Your task to perform on an android device: check storage Image 0: 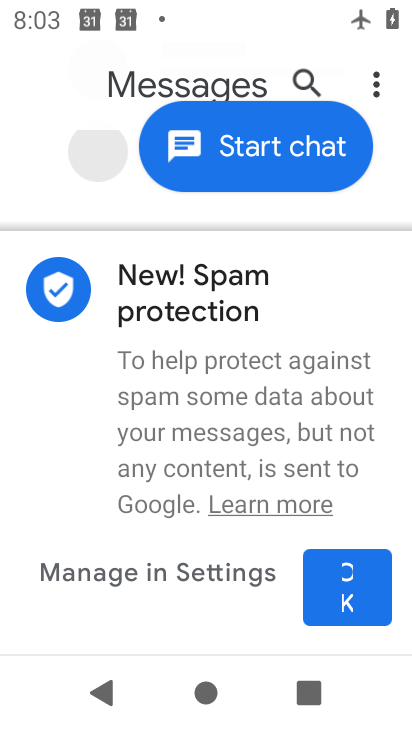
Step 0: press home button
Your task to perform on an android device: check storage Image 1: 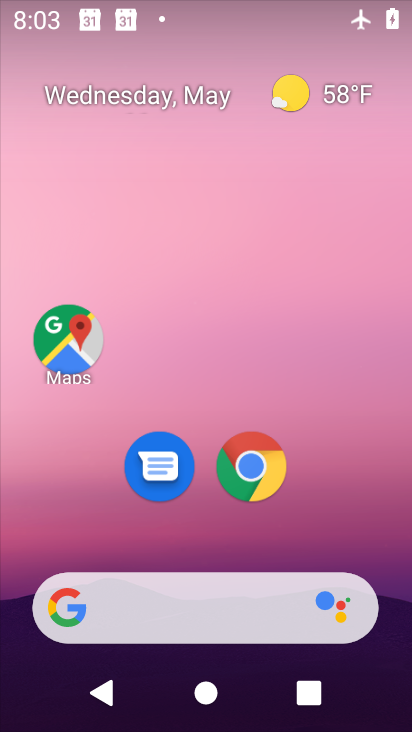
Step 1: drag from (202, 541) to (206, 34)
Your task to perform on an android device: check storage Image 2: 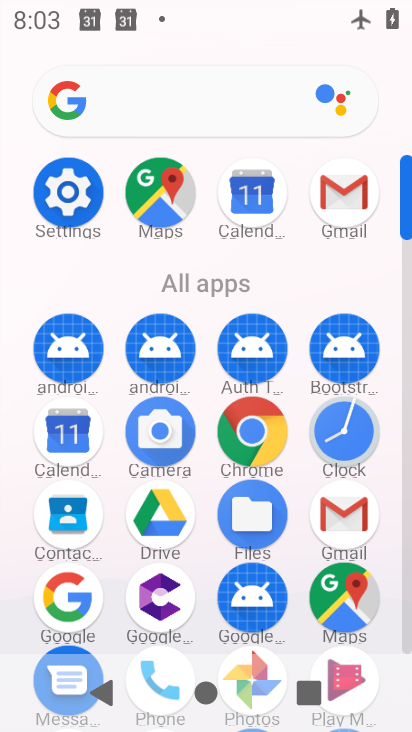
Step 2: click (64, 198)
Your task to perform on an android device: check storage Image 3: 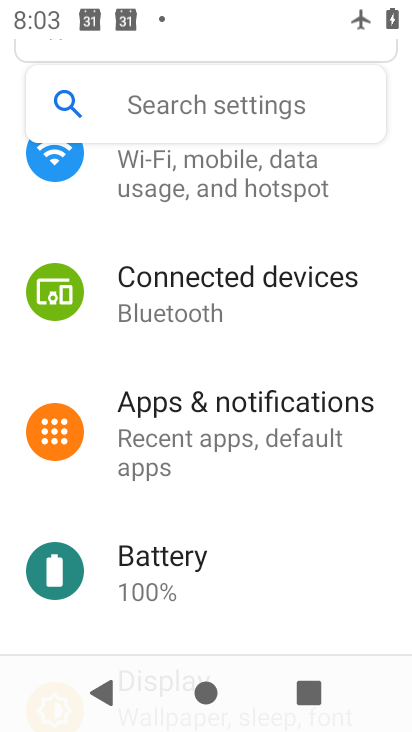
Step 3: drag from (219, 586) to (250, 102)
Your task to perform on an android device: check storage Image 4: 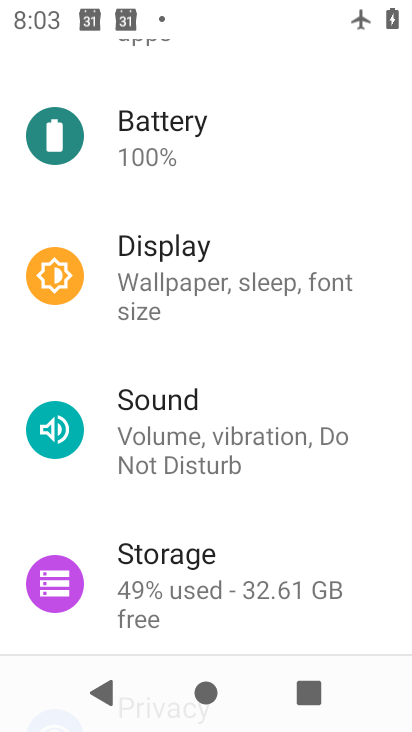
Step 4: click (225, 579)
Your task to perform on an android device: check storage Image 5: 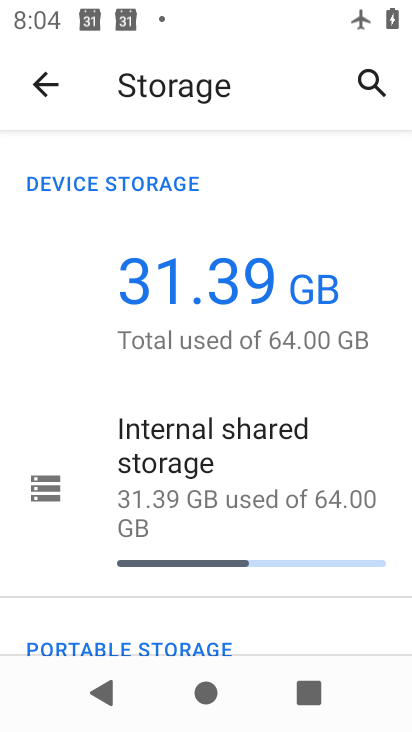
Step 5: task complete